Your task to perform on an android device: add a contact Image 0: 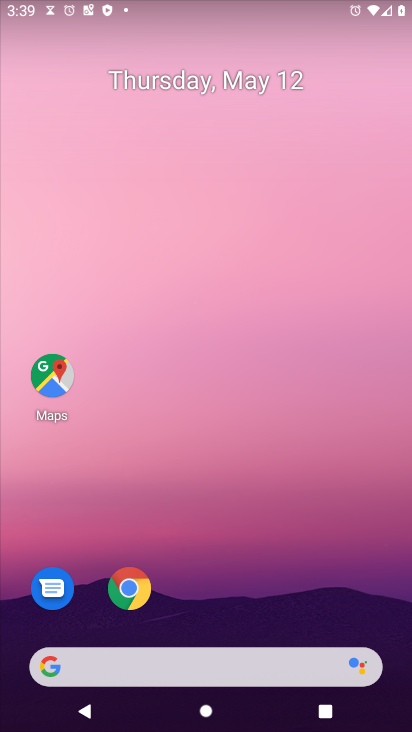
Step 0: drag from (245, 595) to (216, 11)
Your task to perform on an android device: add a contact Image 1: 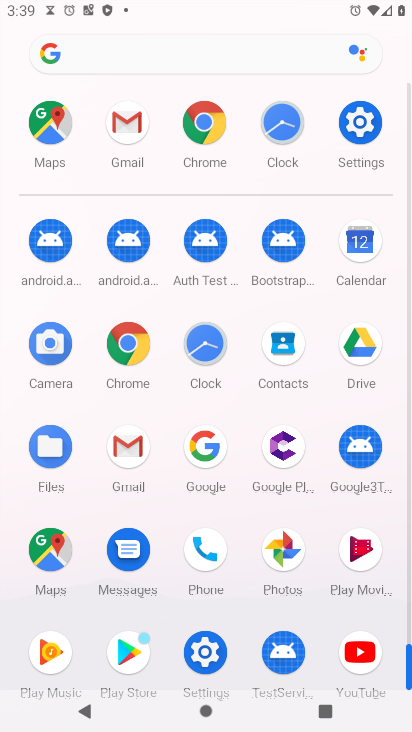
Step 1: drag from (13, 520) to (0, 300)
Your task to perform on an android device: add a contact Image 2: 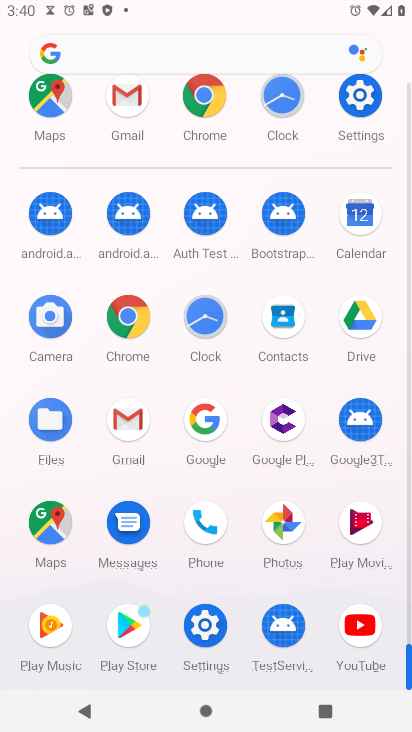
Step 2: click (279, 310)
Your task to perform on an android device: add a contact Image 3: 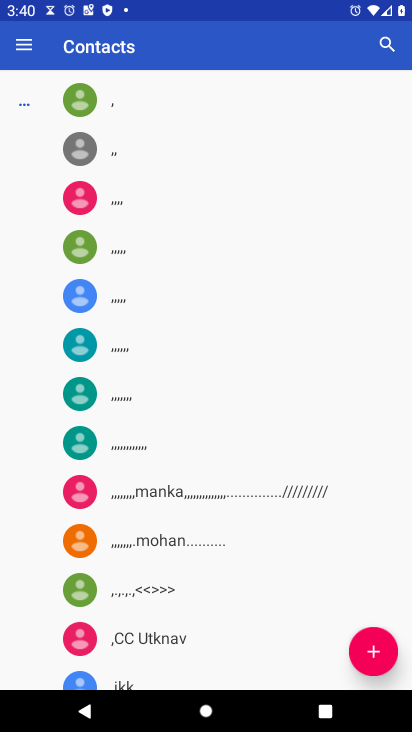
Step 3: click (385, 643)
Your task to perform on an android device: add a contact Image 4: 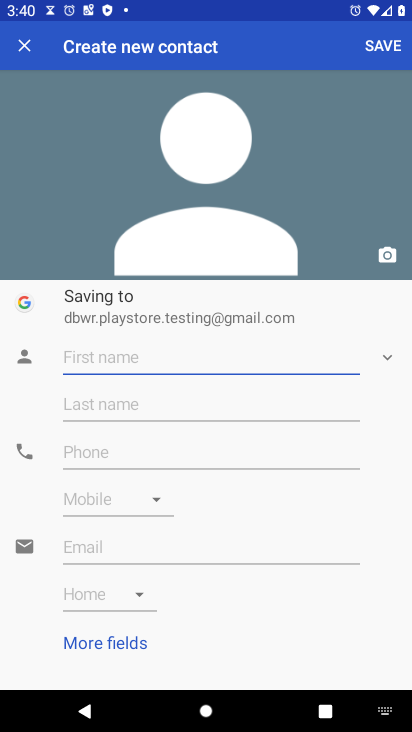
Step 4: type "SDFGH"
Your task to perform on an android device: add a contact Image 5: 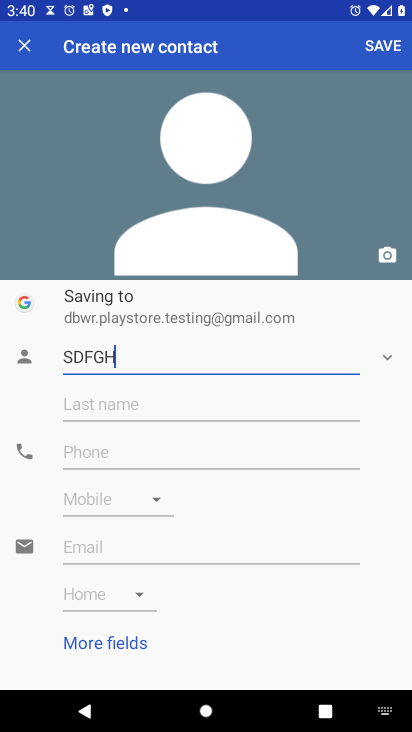
Step 5: type ""
Your task to perform on an android device: add a contact Image 6: 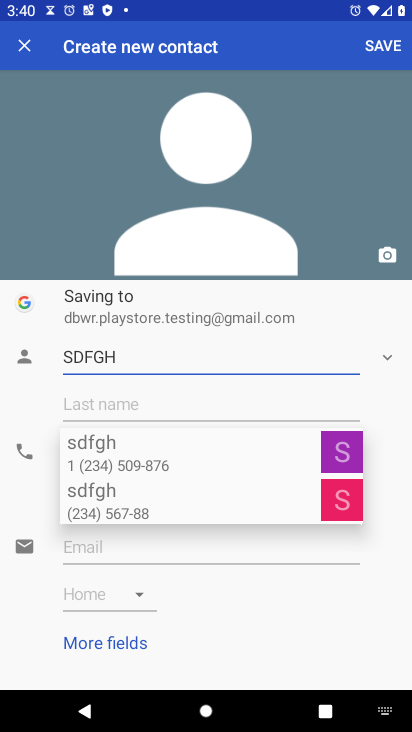
Step 6: click (195, 492)
Your task to perform on an android device: add a contact Image 7: 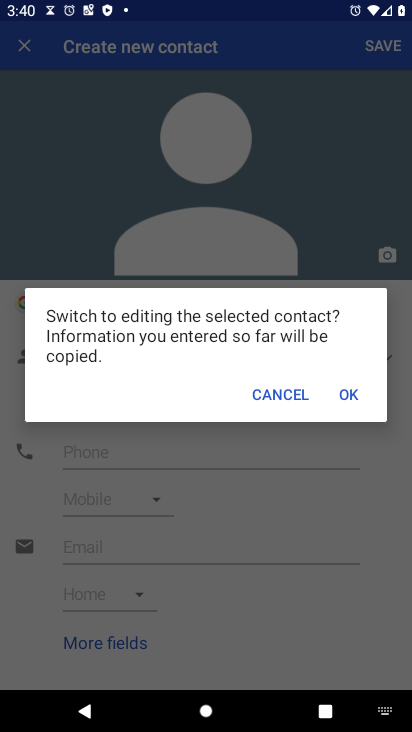
Step 7: click (343, 399)
Your task to perform on an android device: add a contact Image 8: 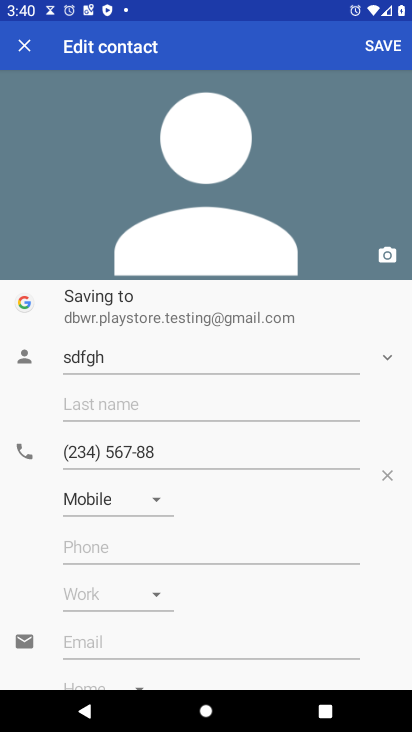
Step 8: click (383, 44)
Your task to perform on an android device: add a contact Image 9: 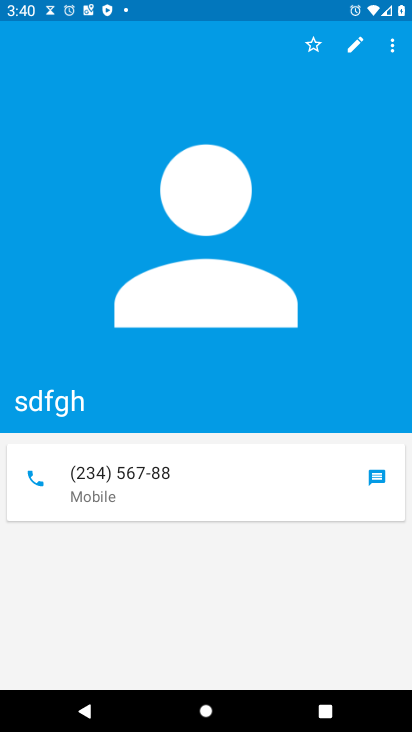
Step 9: task complete